Your task to perform on an android device: Go to Wikipedia Image 0: 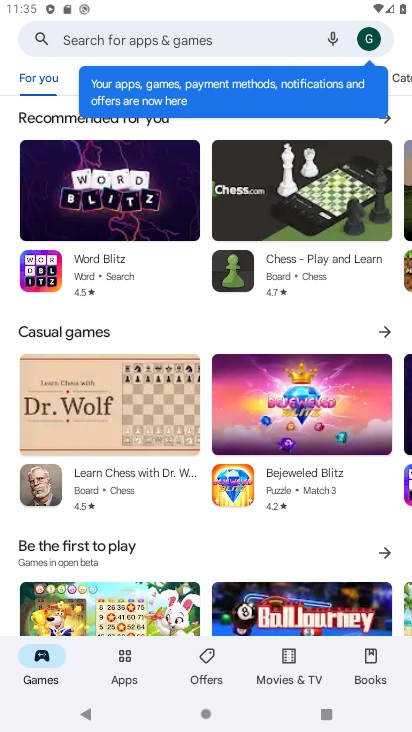
Step 0: press home button
Your task to perform on an android device: Go to Wikipedia Image 1: 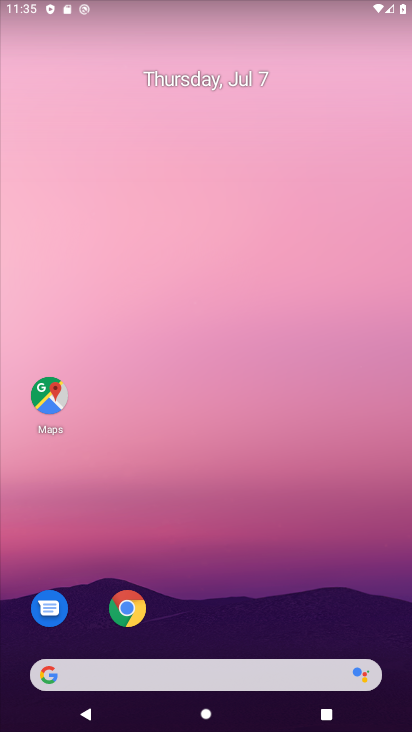
Step 1: click (236, 670)
Your task to perform on an android device: Go to Wikipedia Image 2: 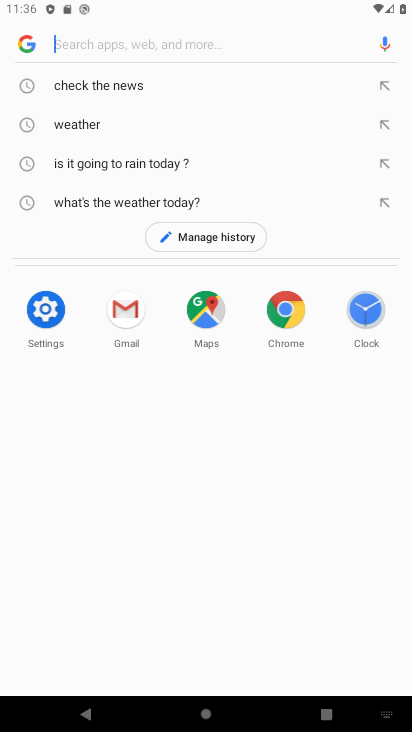
Step 2: type "wikipedia"
Your task to perform on an android device: Go to Wikipedia Image 3: 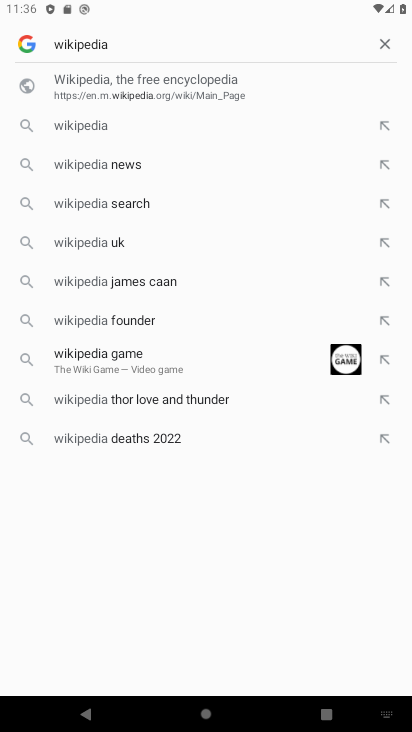
Step 3: click (111, 93)
Your task to perform on an android device: Go to Wikipedia Image 4: 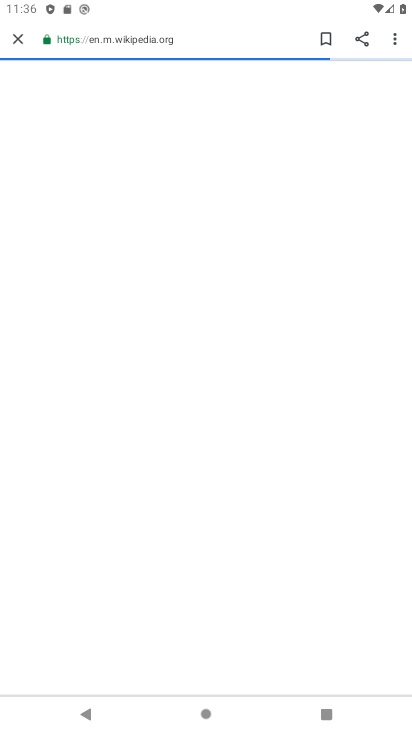
Step 4: task complete